Your task to perform on an android device: When is my next appointment? Image 0: 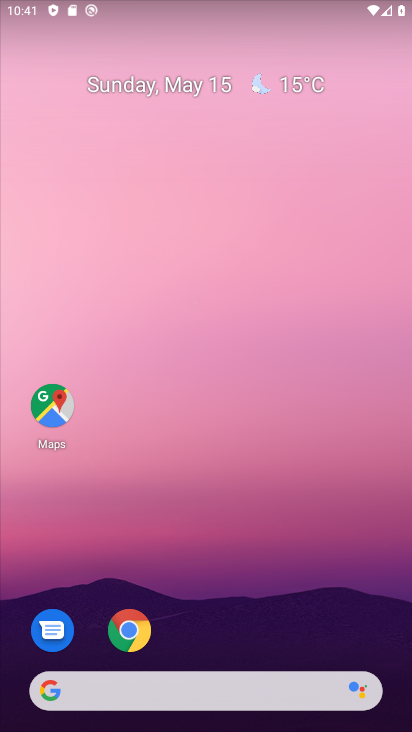
Step 0: drag from (203, 728) to (206, 57)
Your task to perform on an android device: When is my next appointment? Image 1: 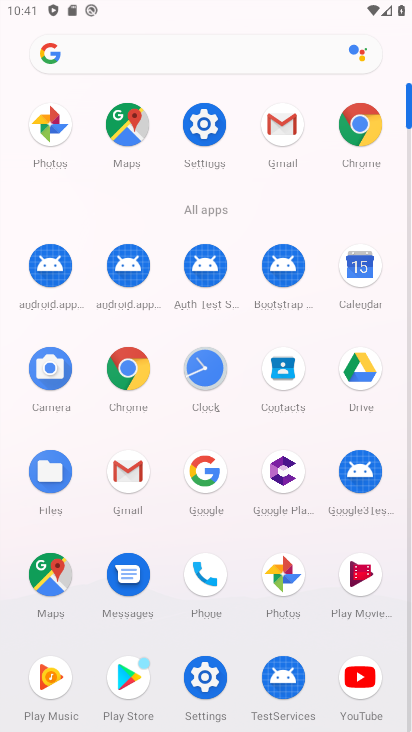
Step 1: click (356, 269)
Your task to perform on an android device: When is my next appointment? Image 2: 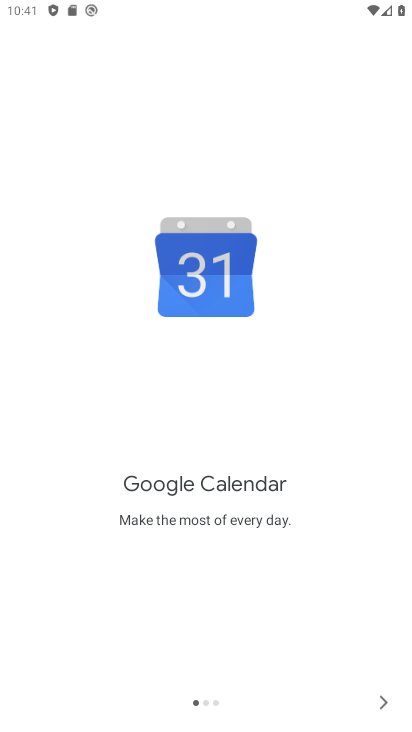
Step 2: click (383, 696)
Your task to perform on an android device: When is my next appointment? Image 3: 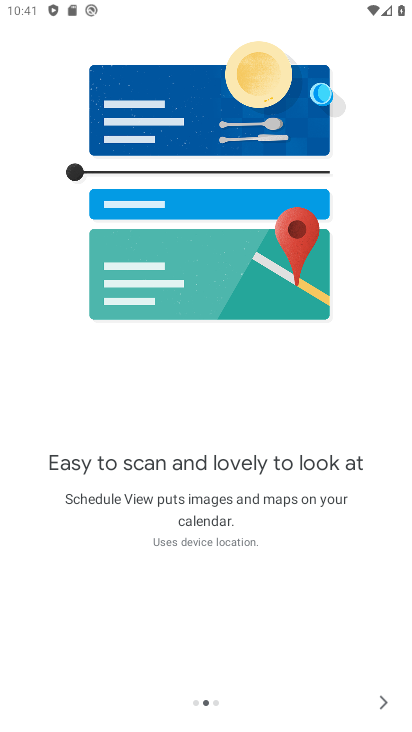
Step 3: click (384, 695)
Your task to perform on an android device: When is my next appointment? Image 4: 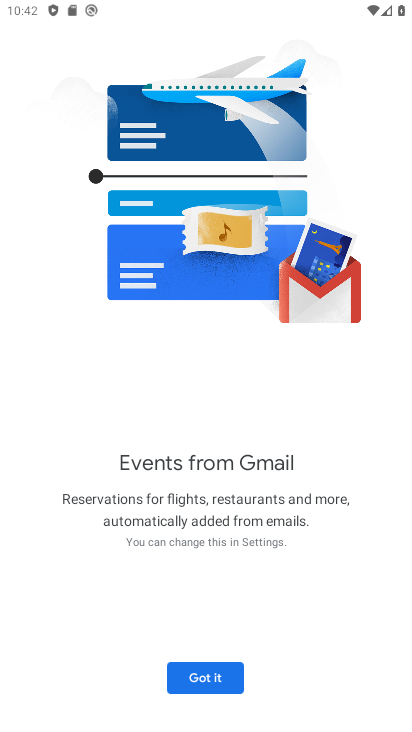
Step 4: click (215, 679)
Your task to perform on an android device: When is my next appointment? Image 5: 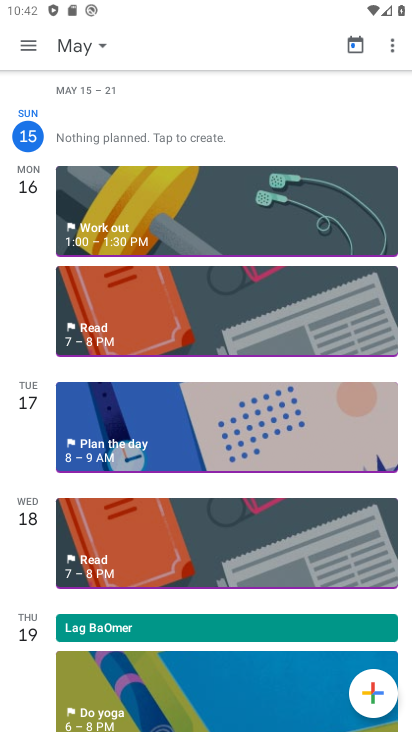
Step 5: click (73, 44)
Your task to perform on an android device: When is my next appointment? Image 6: 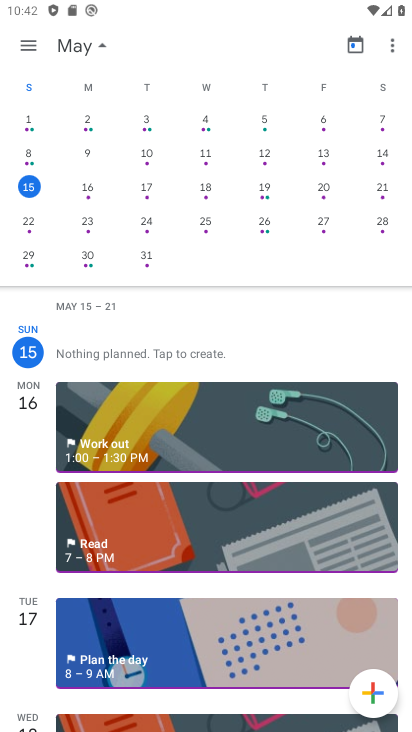
Step 6: click (84, 183)
Your task to perform on an android device: When is my next appointment? Image 7: 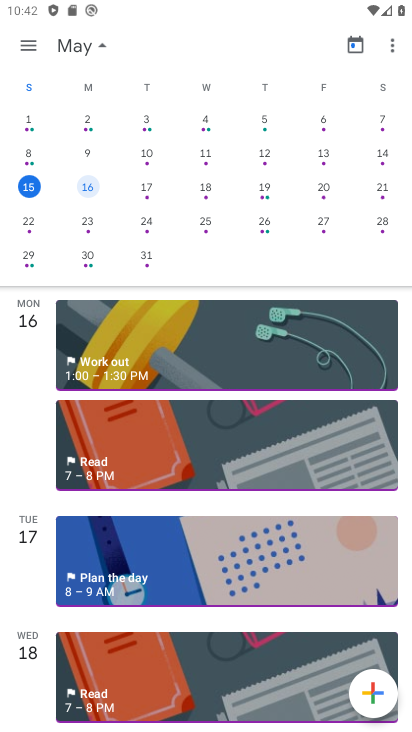
Step 7: task complete